Your task to perform on an android device: turn vacation reply on in the gmail app Image 0: 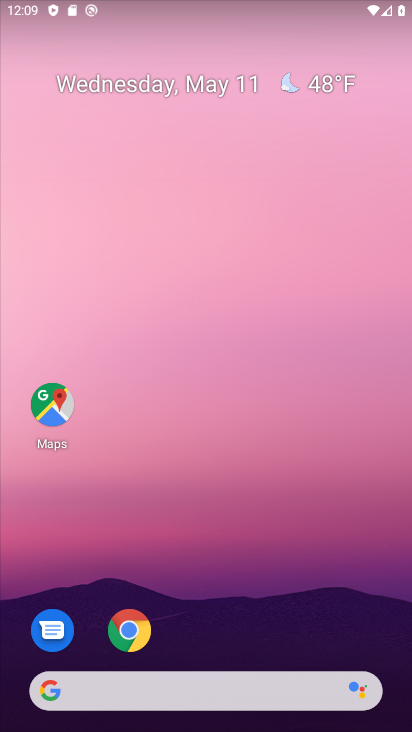
Step 0: drag from (230, 664) to (177, 3)
Your task to perform on an android device: turn vacation reply on in the gmail app Image 1: 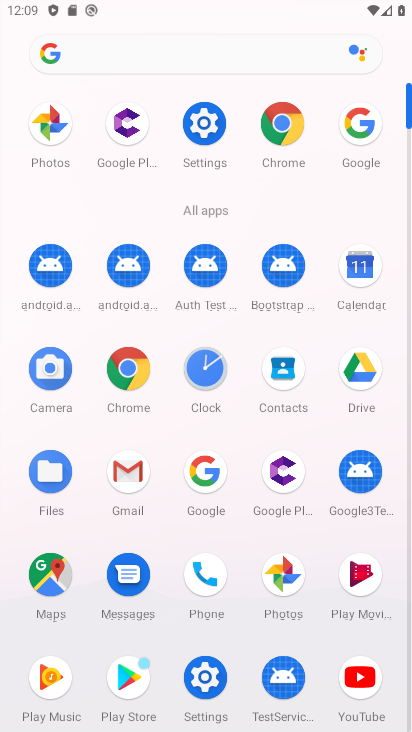
Step 1: click (115, 479)
Your task to perform on an android device: turn vacation reply on in the gmail app Image 2: 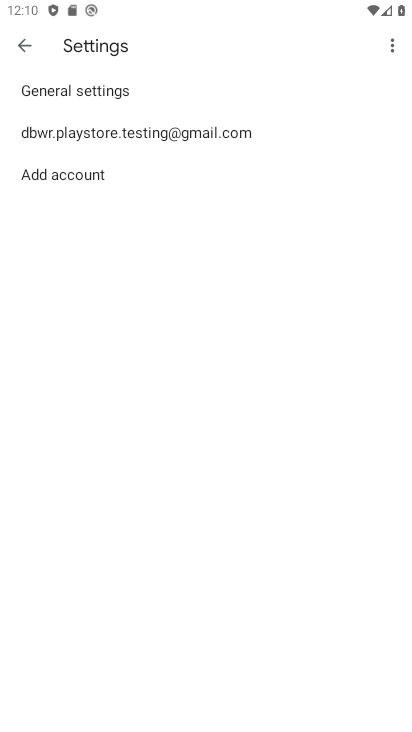
Step 2: click (102, 116)
Your task to perform on an android device: turn vacation reply on in the gmail app Image 3: 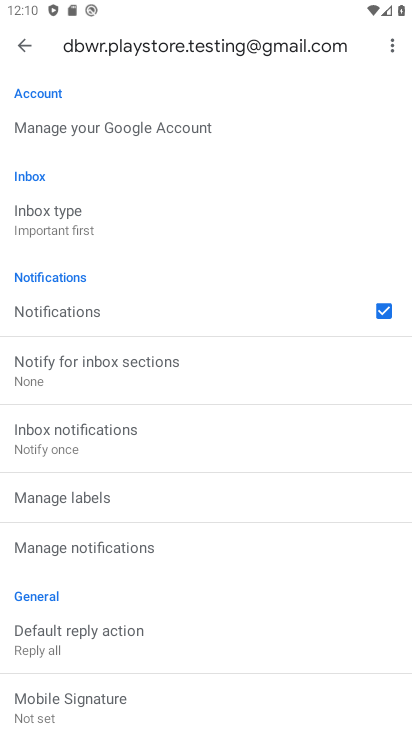
Step 3: drag from (110, 605) to (109, 208)
Your task to perform on an android device: turn vacation reply on in the gmail app Image 4: 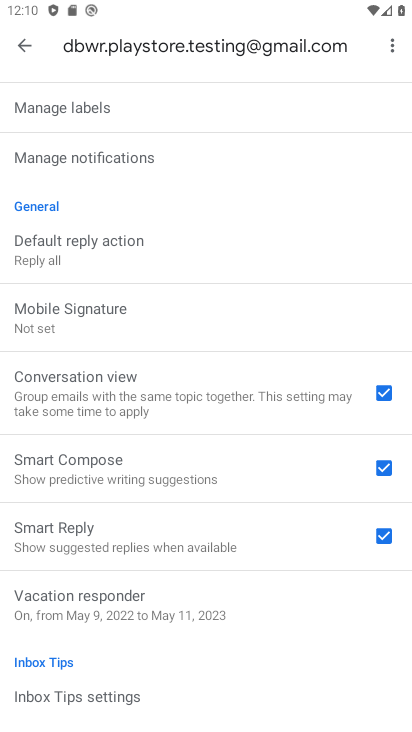
Step 4: click (163, 580)
Your task to perform on an android device: turn vacation reply on in the gmail app Image 5: 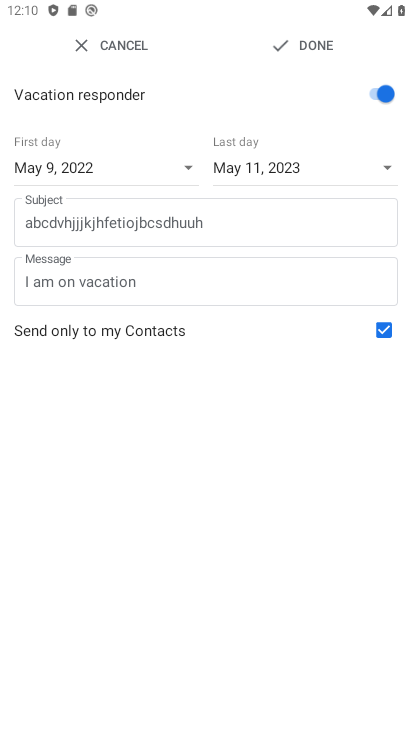
Step 5: click (285, 50)
Your task to perform on an android device: turn vacation reply on in the gmail app Image 6: 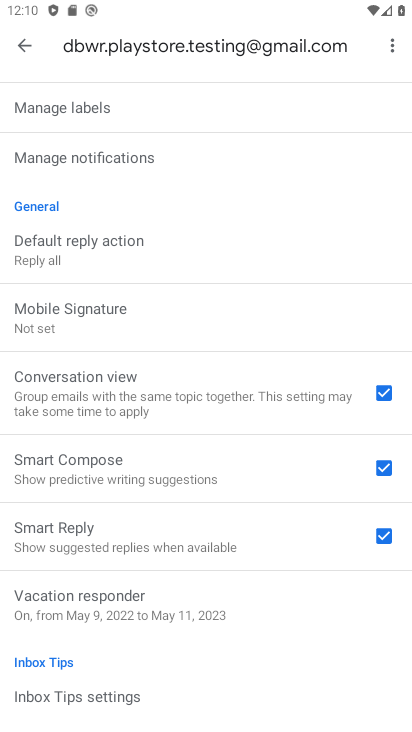
Step 6: task complete